Your task to perform on an android device: Go to ESPN.com Image 0: 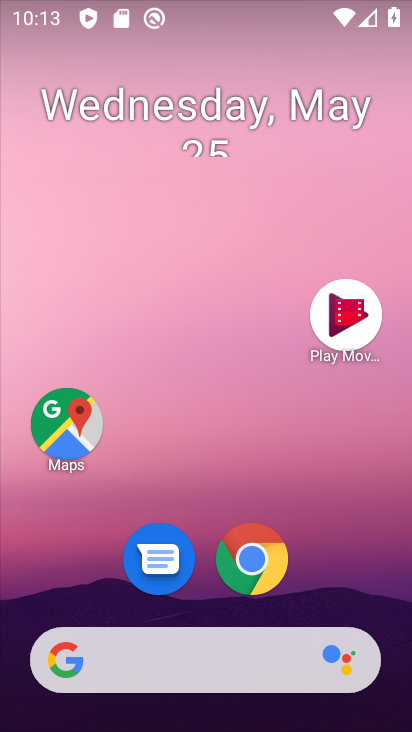
Step 0: click (266, 643)
Your task to perform on an android device: Go to ESPN.com Image 1: 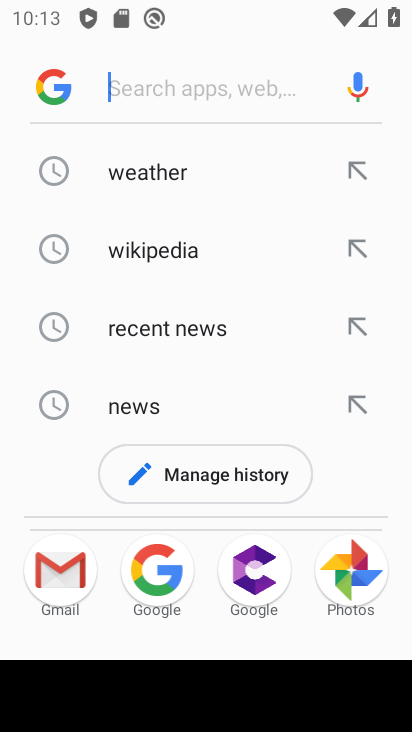
Step 1: type " ESPN.com"
Your task to perform on an android device: Go to ESPN.com Image 2: 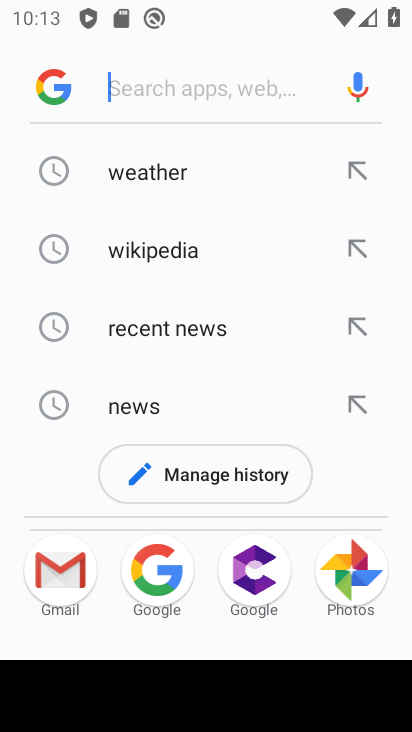
Step 2: click (159, 90)
Your task to perform on an android device: Go to ESPN.com Image 3: 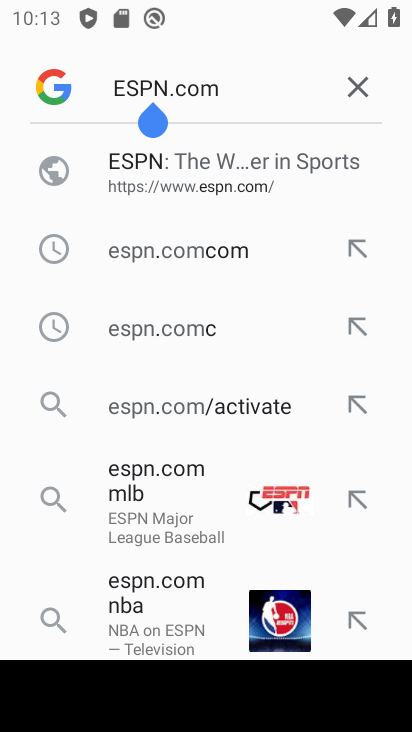
Step 3: click (214, 177)
Your task to perform on an android device: Go to ESPN.com Image 4: 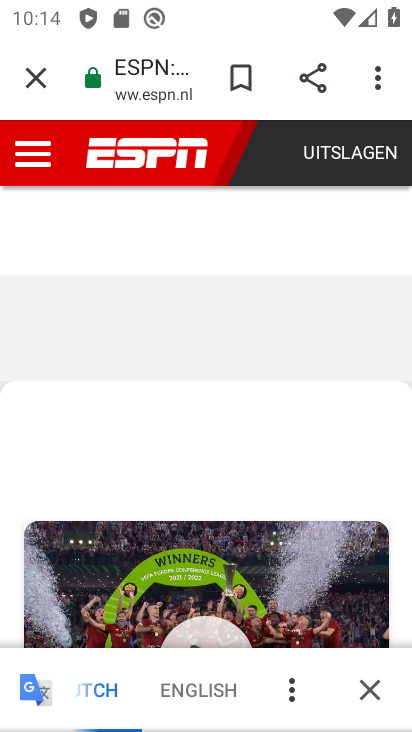
Step 4: task complete